Your task to perform on an android device: View the shopping cart on newegg. Search for razer kraken on newegg, select the first entry, add it to the cart, then select checkout. Image 0: 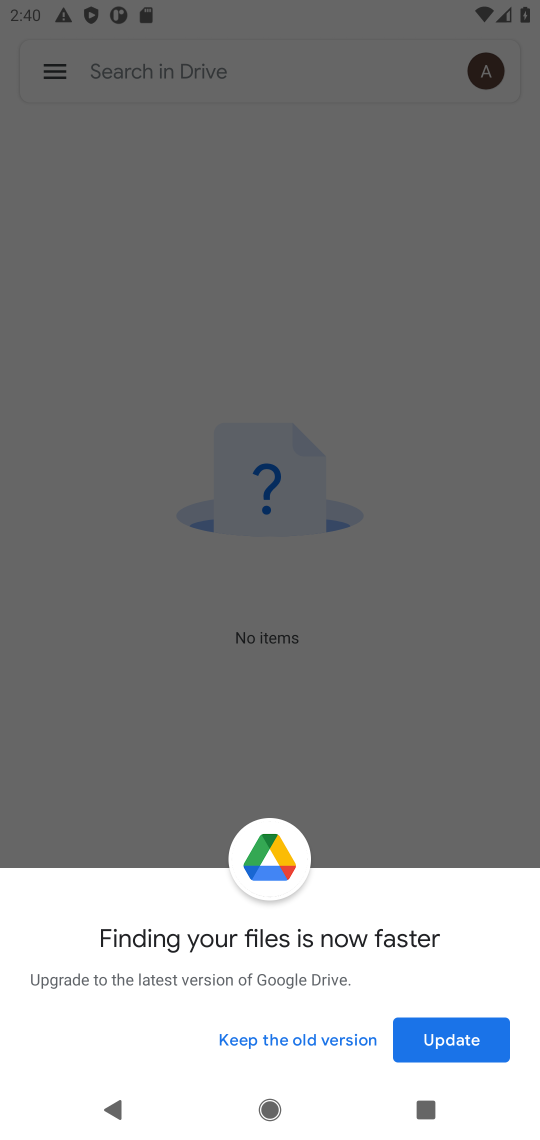
Step 0: press home button
Your task to perform on an android device: View the shopping cart on newegg. Search for razer kraken on newegg, select the first entry, add it to the cart, then select checkout. Image 1: 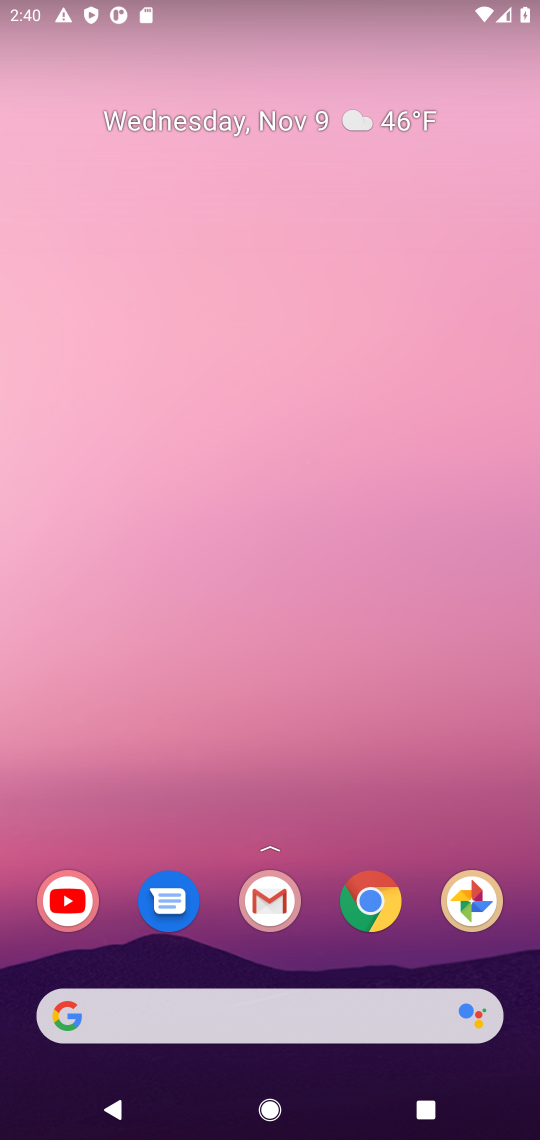
Step 1: click (366, 920)
Your task to perform on an android device: View the shopping cart on newegg. Search for razer kraken on newegg, select the first entry, add it to the cart, then select checkout. Image 2: 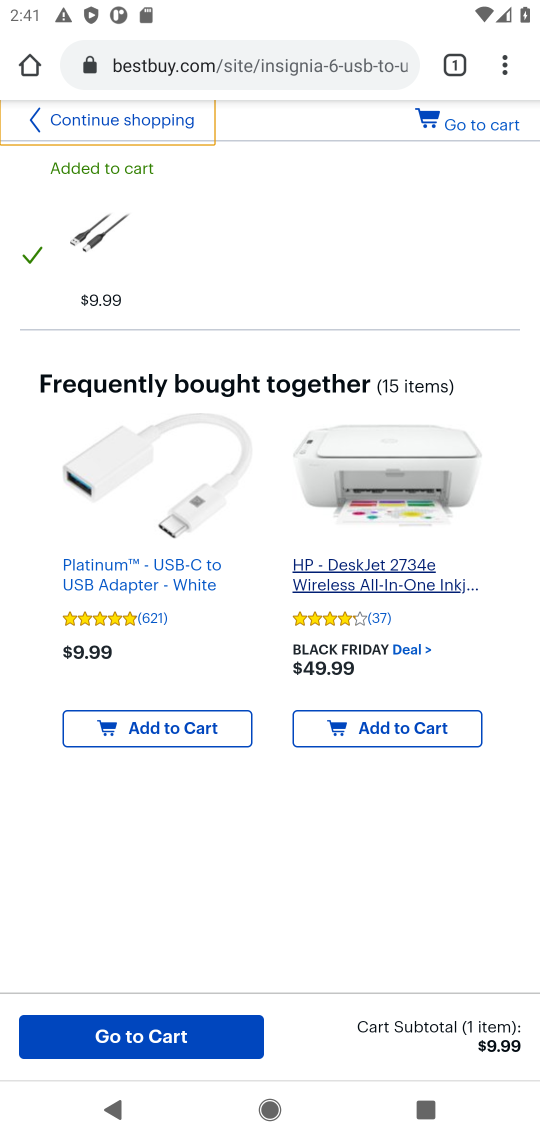
Step 2: click (234, 59)
Your task to perform on an android device: View the shopping cart on newegg. Search for razer kraken on newegg, select the first entry, add it to the cart, then select checkout. Image 3: 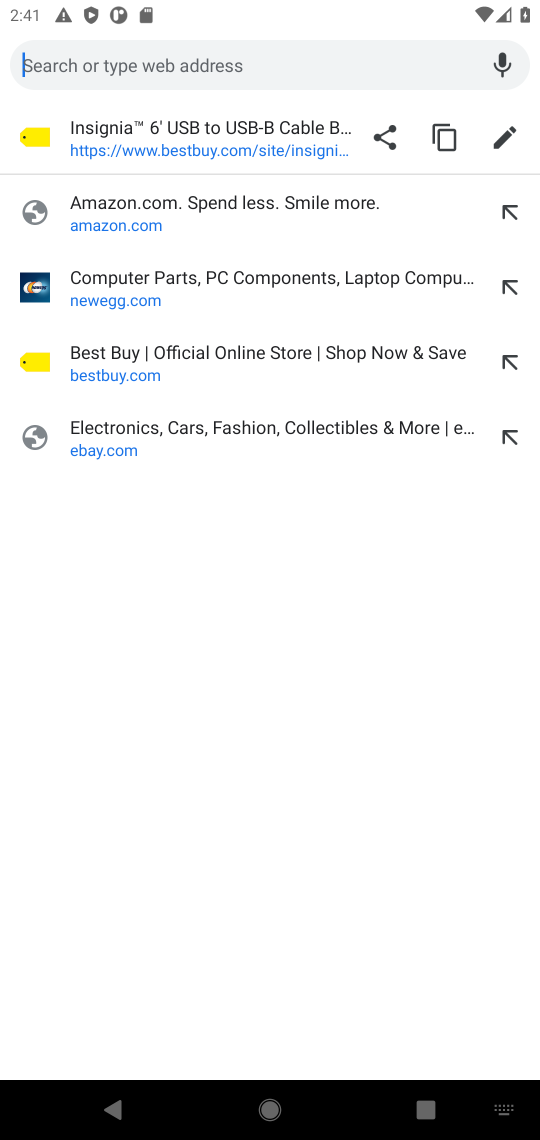
Step 3: press enter
Your task to perform on an android device: View the shopping cart on newegg. Search for razer kraken on newegg, select the first entry, add it to the cart, then select checkout. Image 4: 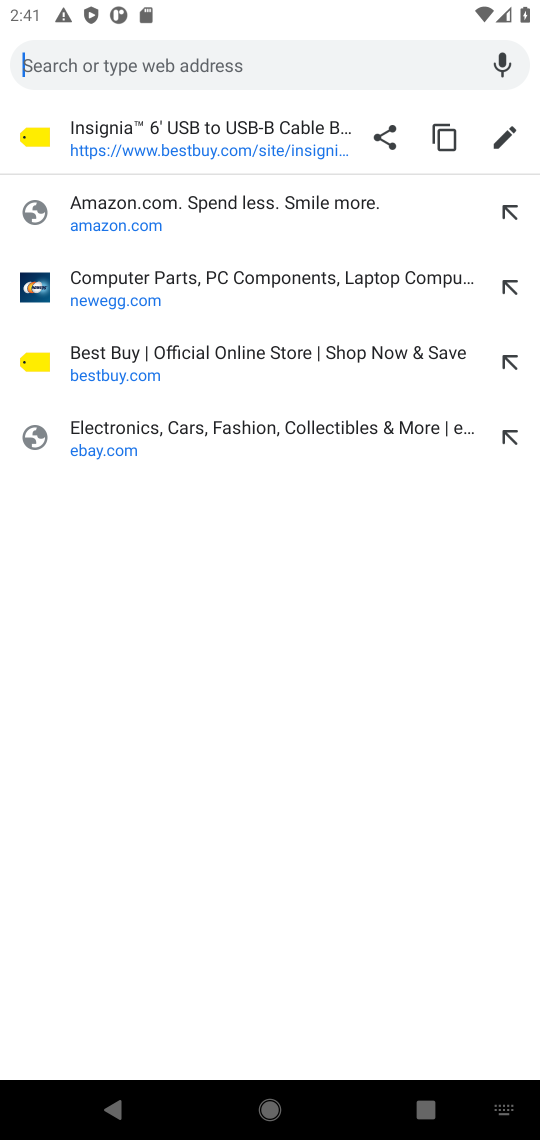
Step 4: type "newegg"
Your task to perform on an android device: View the shopping cart on newegg. Search for razer kraken on newegg, select the first entry, add it to the cart, then select checkout. Image 5: 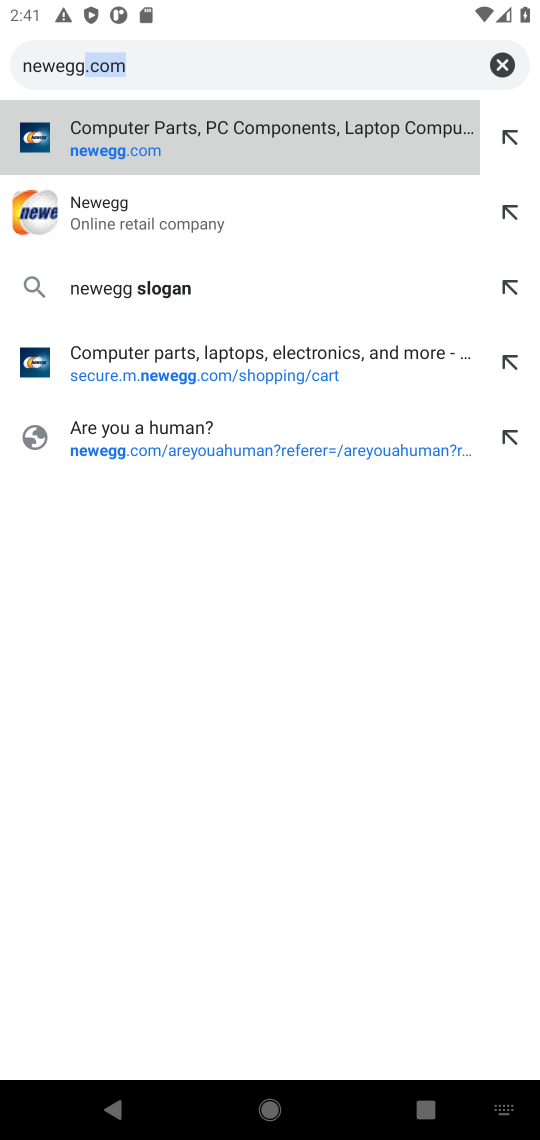
Step 5: click (271, 59)
Your task to perform on an android device: View the shopping cart on newegg. Search for razer kraken on newegg, select the first entry, add it to the cart, then select checkout. Image 6: 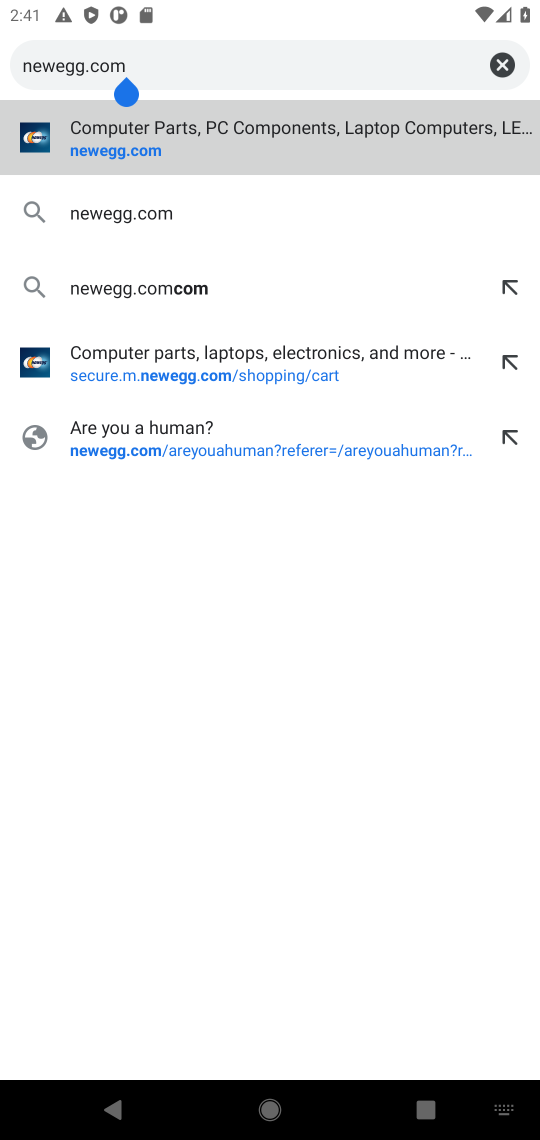
Step 6: click (158, 214)
Your task to perform on an android device: View the shopping cart on newegg. Search for razer kraken on newegg, select the first entry, add it to the cart, then select checkout. Image 7: 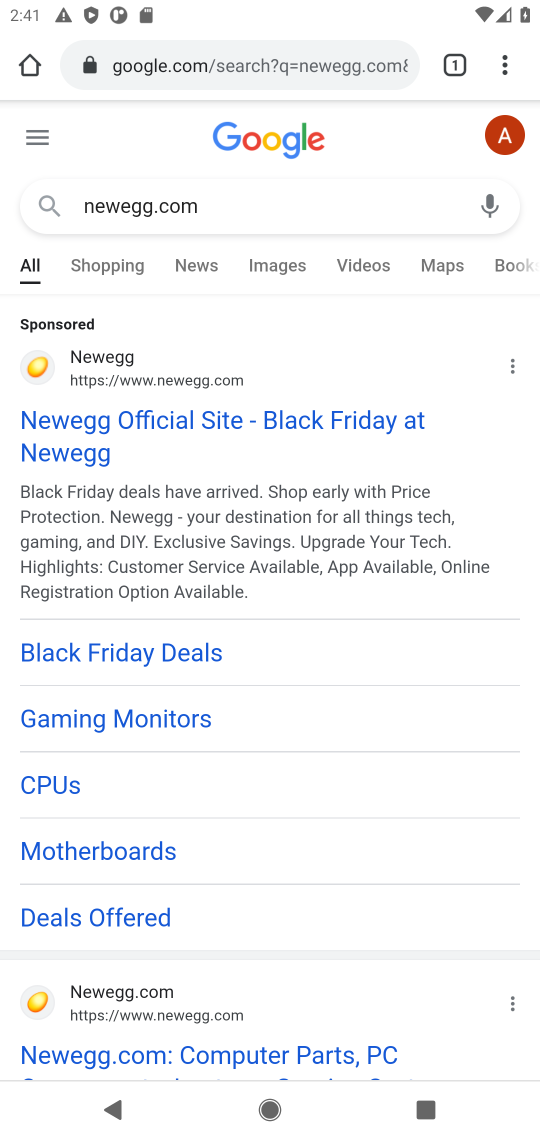
Step 7: click (124, 369)
Your task to perform on an android device: View the shopping cart on newegg. Search for razer kraken on newegg, select the first entry, add it to the cart, then select checkout. Image 8: 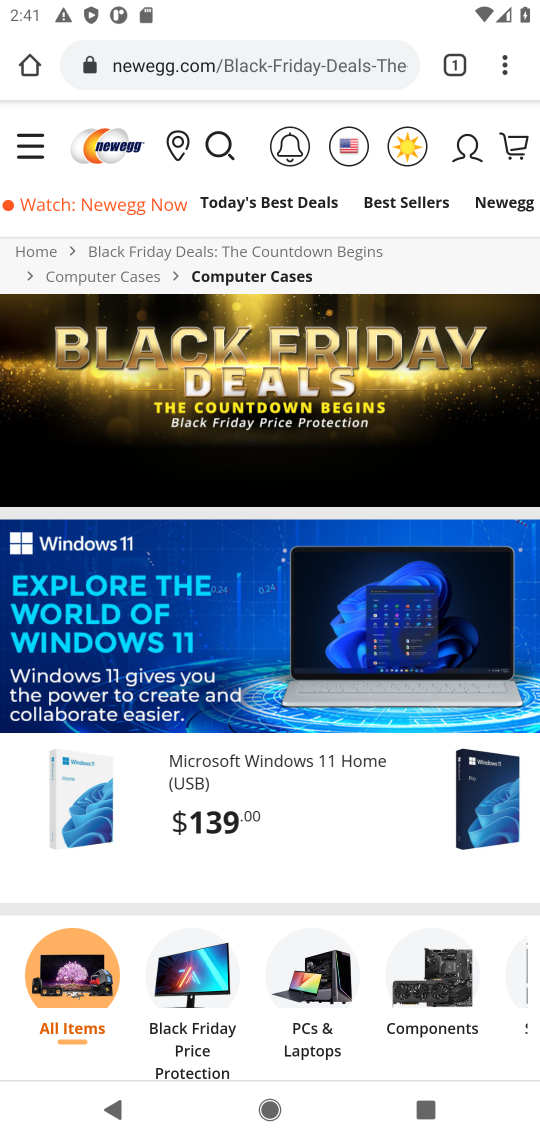
Step 8: click (225, 137)
Your task to perform on an android device: View the shopping cart on newegg. Search for razer kraken on newegg, select the first entry, add it to the cart, then select checkout. Image 9: 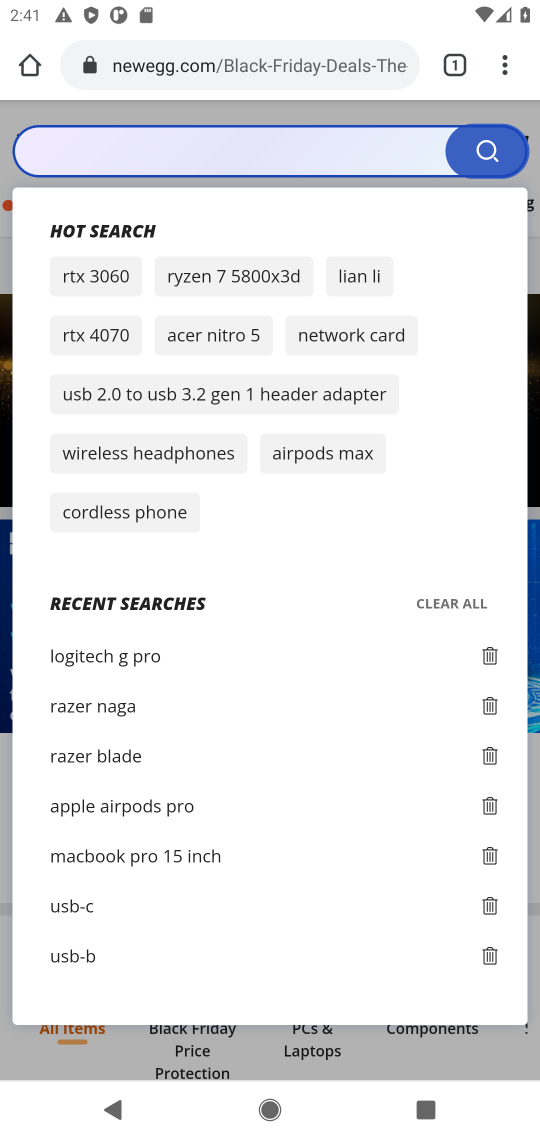
Step 9: click (141, 142)
Your task to perform on an android device: View the shopping cart on newegg. Search for razer kraken on newegg, select the first entry, add it to the cart, then select checkout. Image 10: 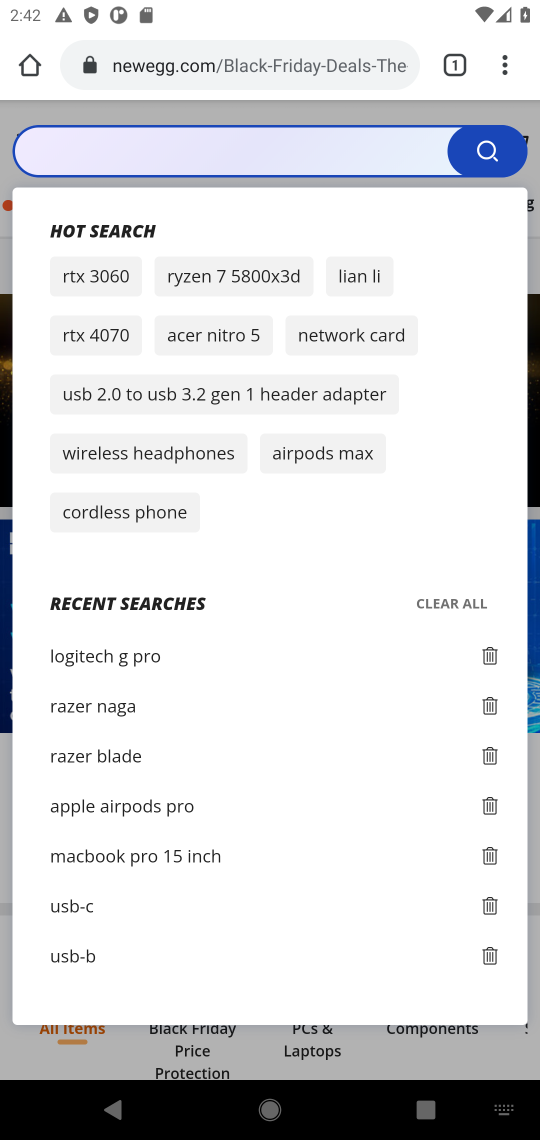
Step 10: press enter
Your task to perform on an android device: View the shopping cart on newegg. Search for razer kraken on newegg, select the first entry, add it to the cart, then select checkout. Image 11: 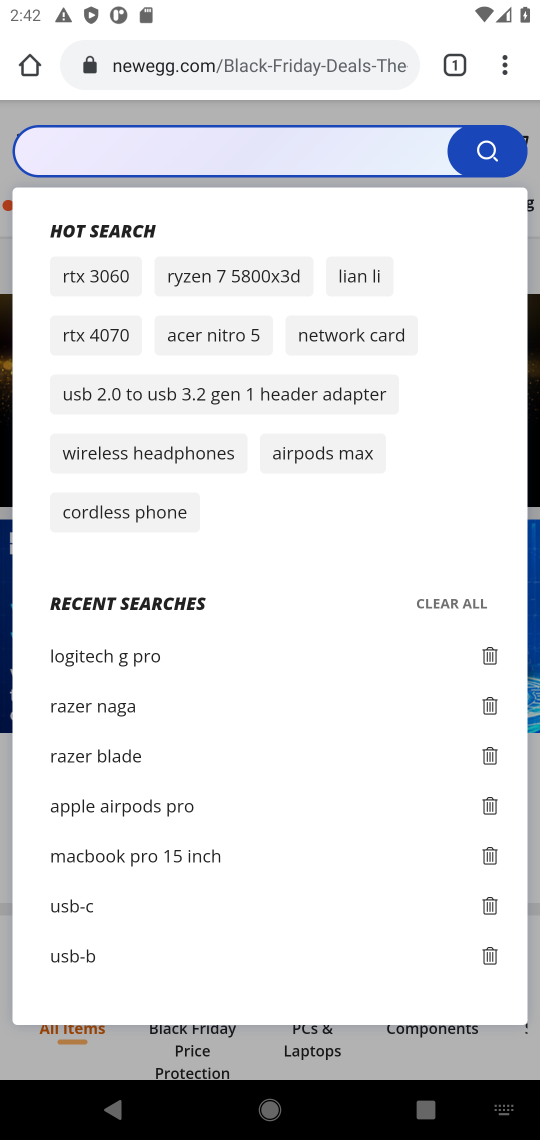
Step 11: type "razer kraken"
Your task to perform on an android device: View the shopping cart on newegg. Search for razer kraken on newegg, select the first entry, add it to the cart, then select checkout. Image 12: 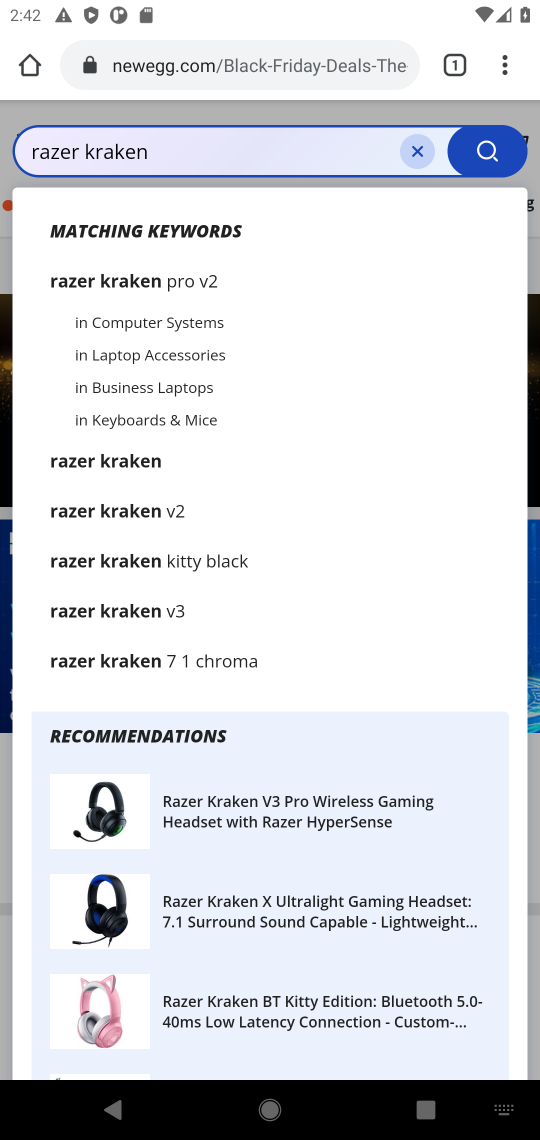
Step 12: click (94, 472)
Your task to perform on an android device: View the shopping cart on newegg. Search for razer kraken on newegg, select the first entry, add it to the cart, then select checkout. Image 13: 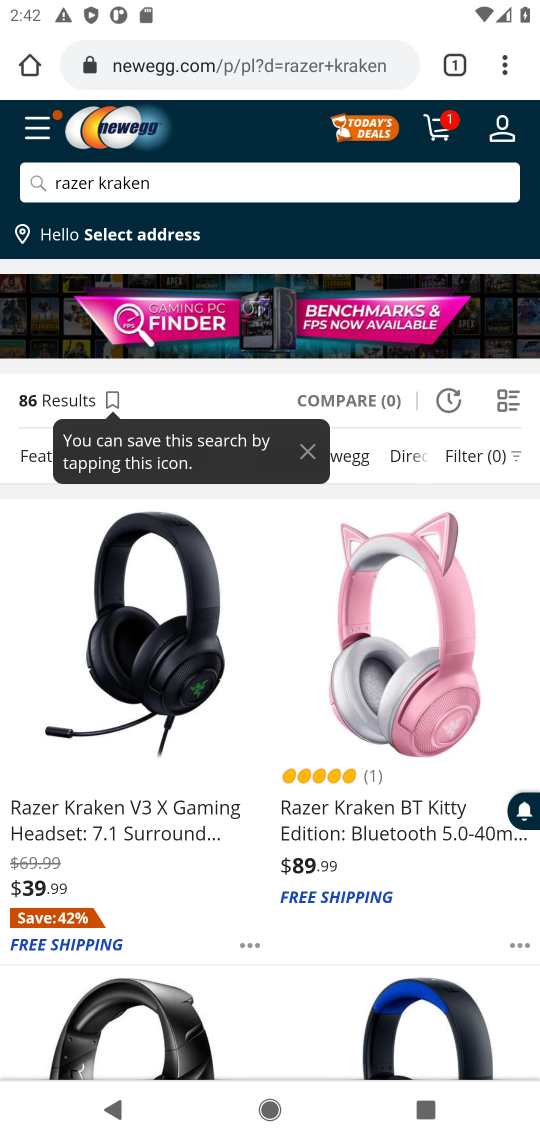
Step 13: click (137, 718)
Your task to perform on an android device: View the shopping cart on newegg. Search for razer kraken on newegg, select the first entry, add it to the cart, then select checkout. Image 14: 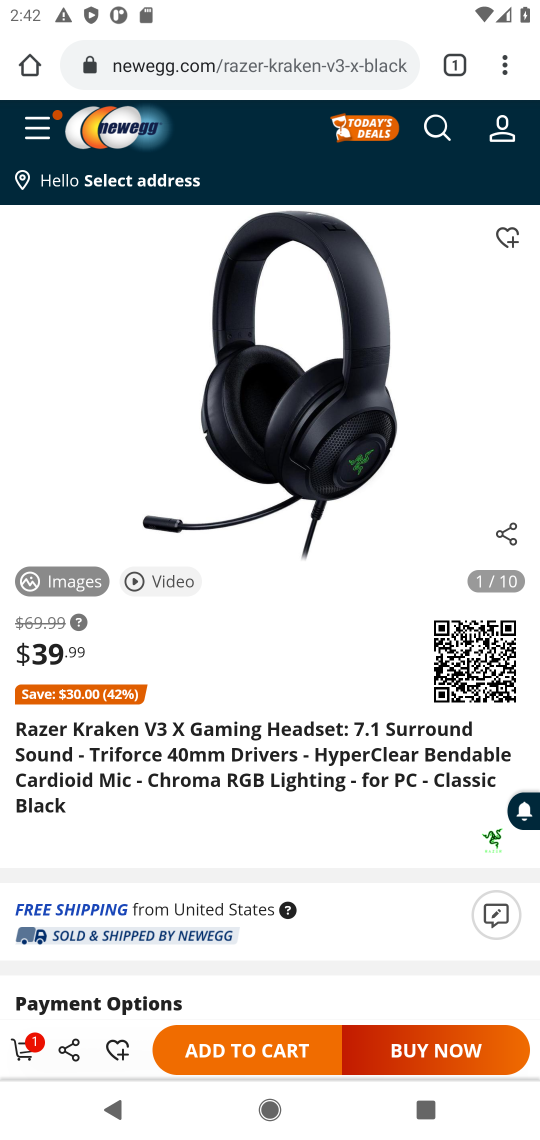
Step 14: click (21, 1060)
Your task to perform on an android device: View the shopping cart on newegg. Search for razer kraken on newegg, select the first entry, add it to the cart, then select checkout. Image 15: 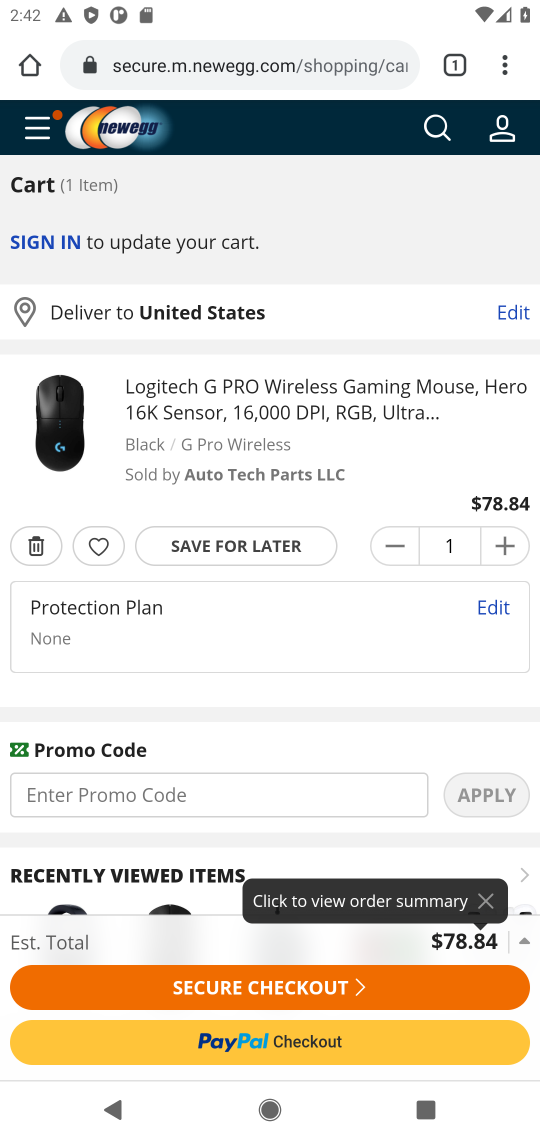
Step 15: press back button
Your task to perform on an android device: View the shopping cart on newegg. Search for razer kraken on newegg, select the first entry, add it to the cart, then select checkout. Image 16: 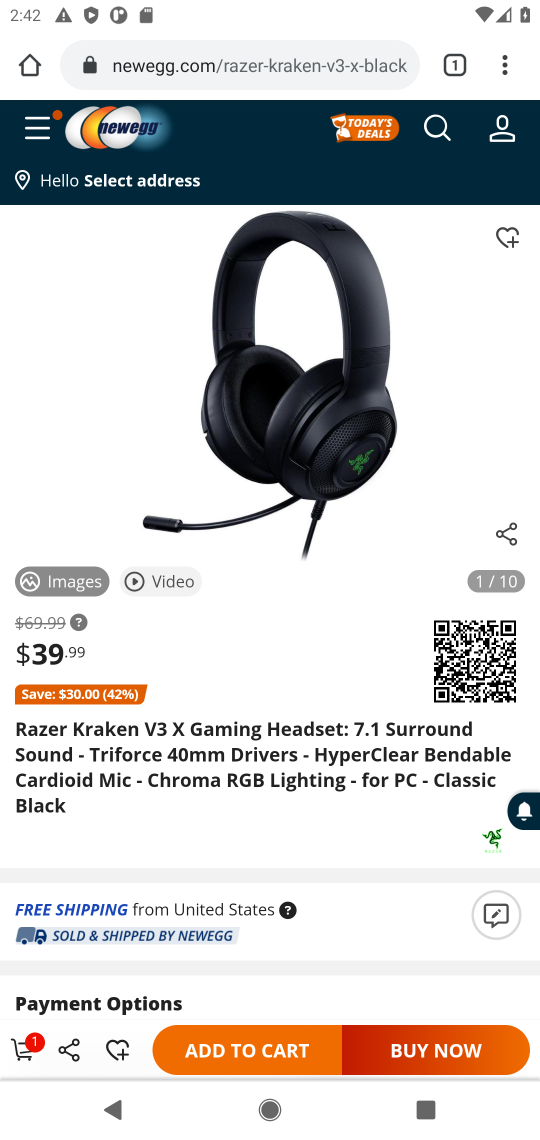
Step 16: click (256, 1039)
Your task to perform on an android device: View the shopping cart on newegg. Search for razer kraken on newegg, select the first entry, add it to the cart, then select checkout. Image 17: 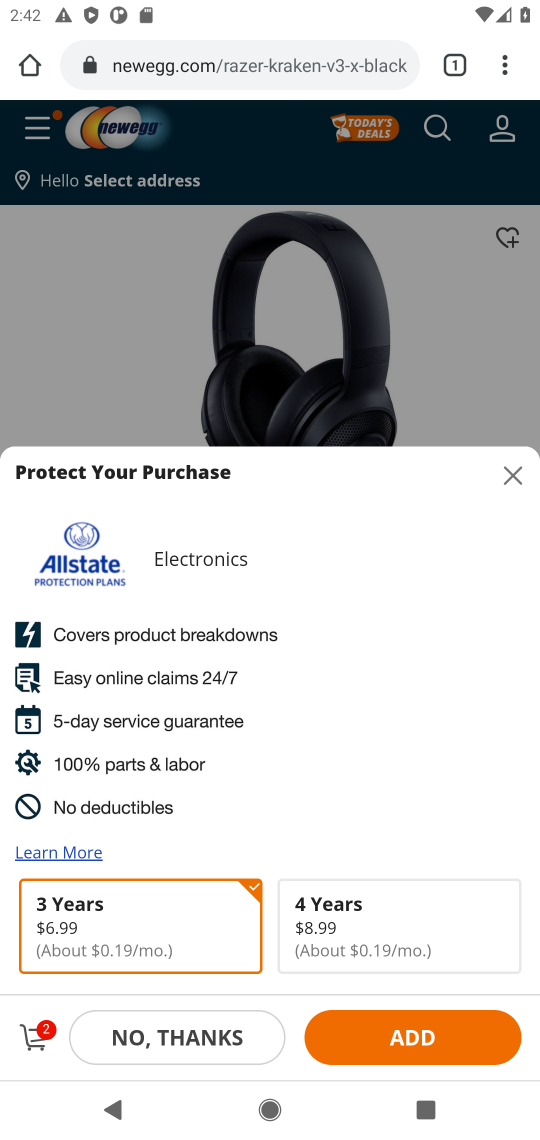
Step 17: click (494, 476)
Your task to perform on an android device: View the shopping cart on newegg. Search for razer kraken on newegg, select the first entry, add it to the cart, then select checkout. Image 18: 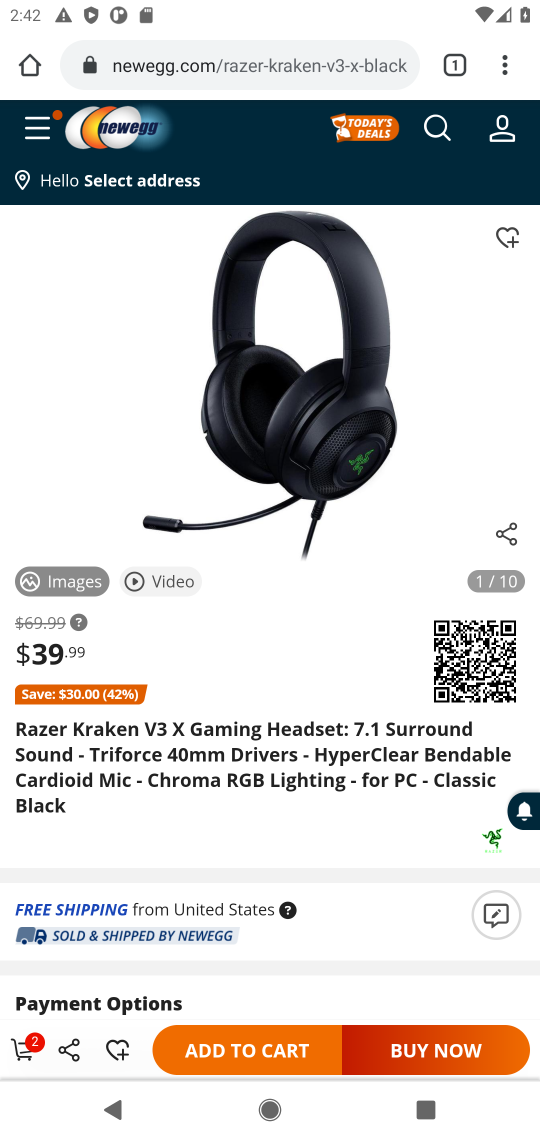
Step 18: click (22, 1051)
Your task to perform on an android device: View the shopping cart on newegg. Search for razer kraken on newegg, select the first entry, add it to the cart, then select checkout. Image 19: 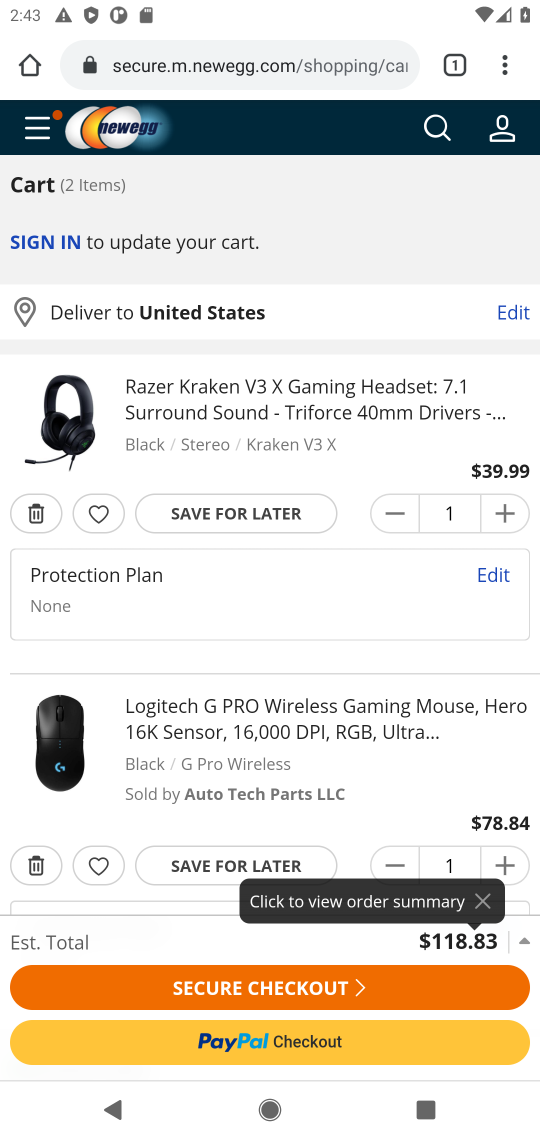
Step 19: click (220, 989)
Your task to perform on an android device: View the shopping cart on newegg. Search for razer kraken on newegg, select the first entry, add it to the cart, then select checkout. Image 20: 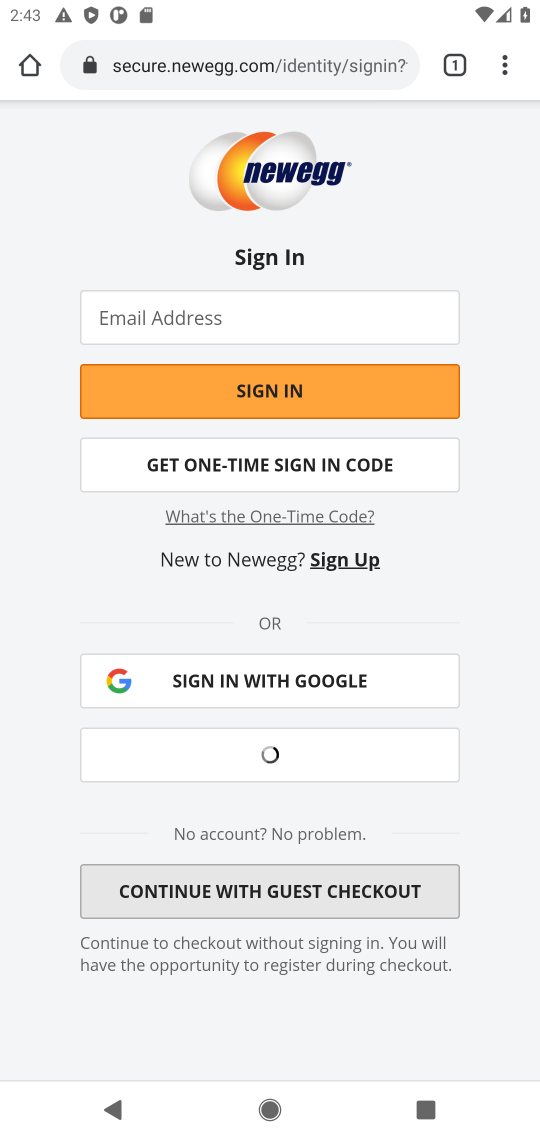
Step 20: task complete